Your task to perform on an android device: install app "Adobe Express: Graphic Design" Image 0: 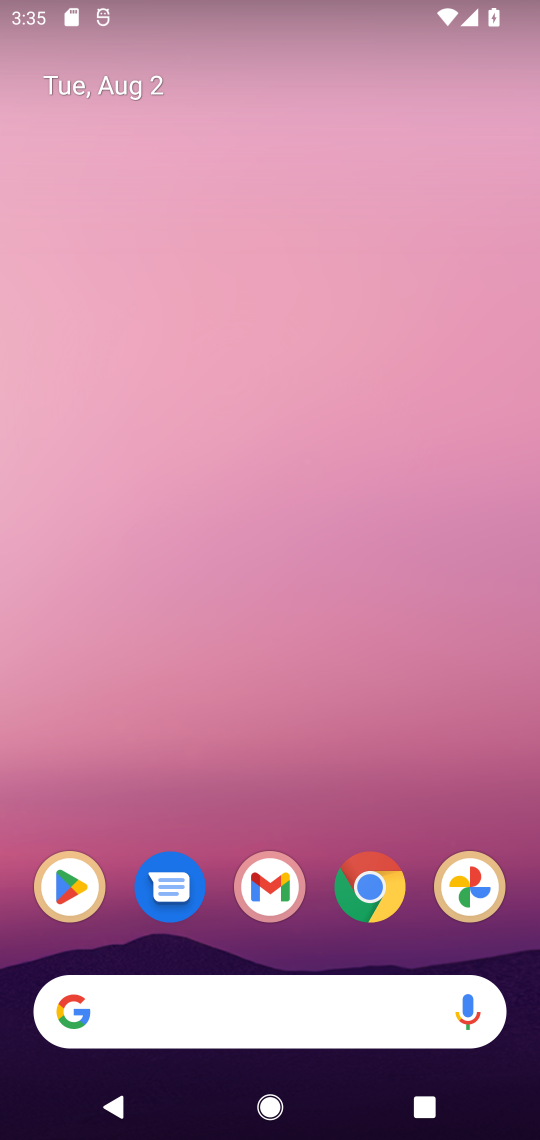
Step 0: click (61, 893)
Your task to perform on an android device: install app "Adobe Express: Graphic Design" Image 1: 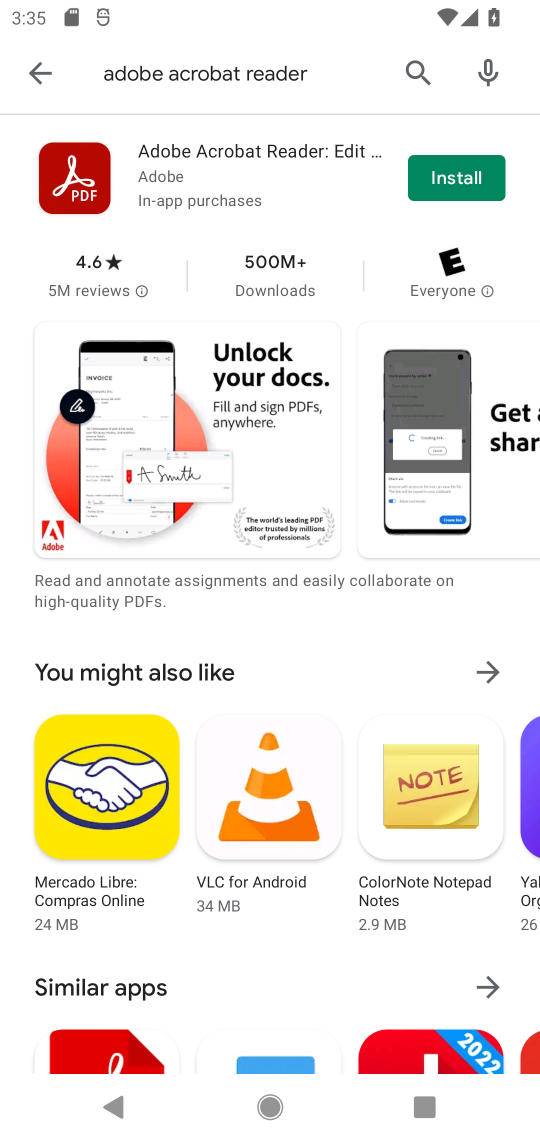
Step 1: click (47, 64)
Your task to perform on an android device: install app "Adobe Express: Graphic Design" Image 2: 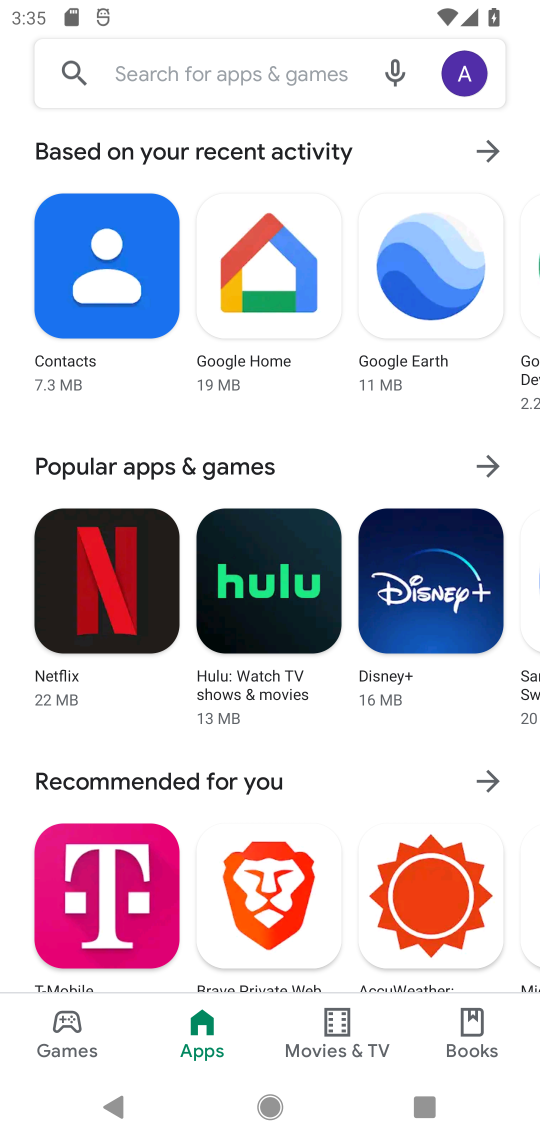
Step 2: click (137, 64)
Your task to perform on an android device: install app "Adobe Express: Graphic Design" Image 3: 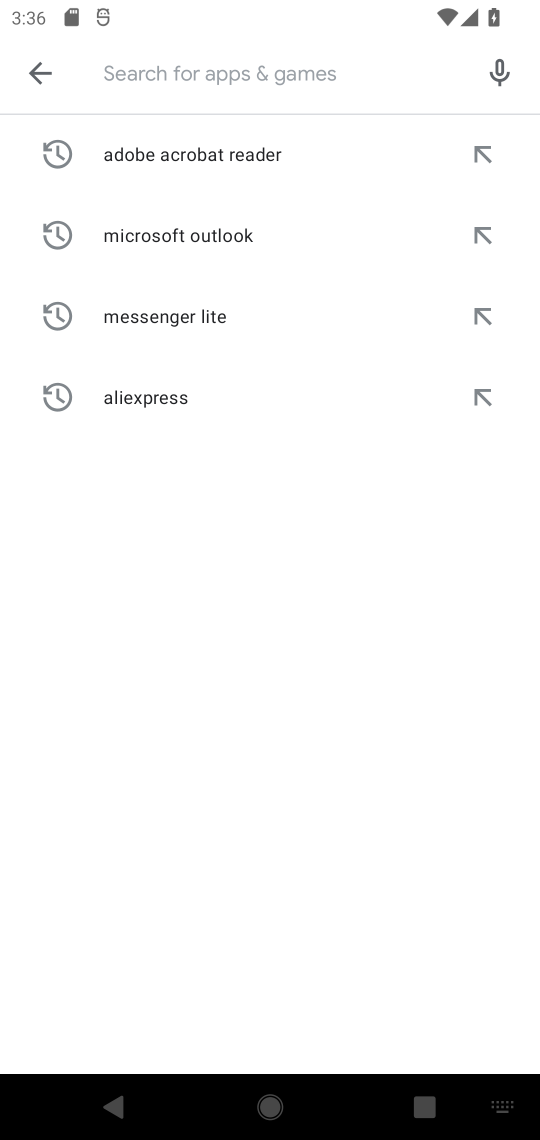
Step 3: type "Adobe Express"
Your task to perform on an android device: install app "Adobe Express: Graphic Design" Image 4: 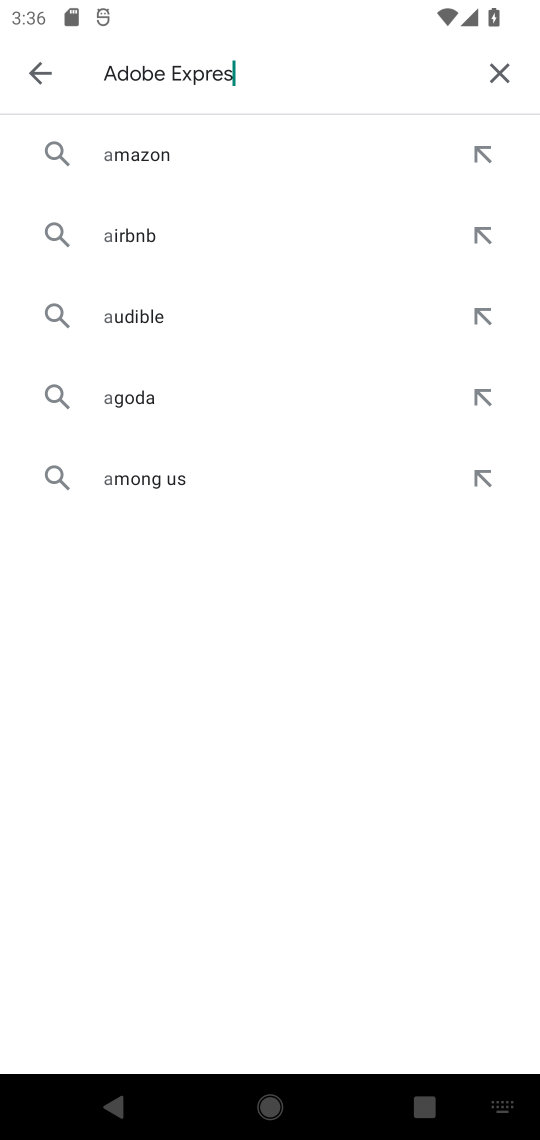
Step 4: type ""
Your task to perform on an android device: install app "Adobe Express: Graphic Design" Image 5: 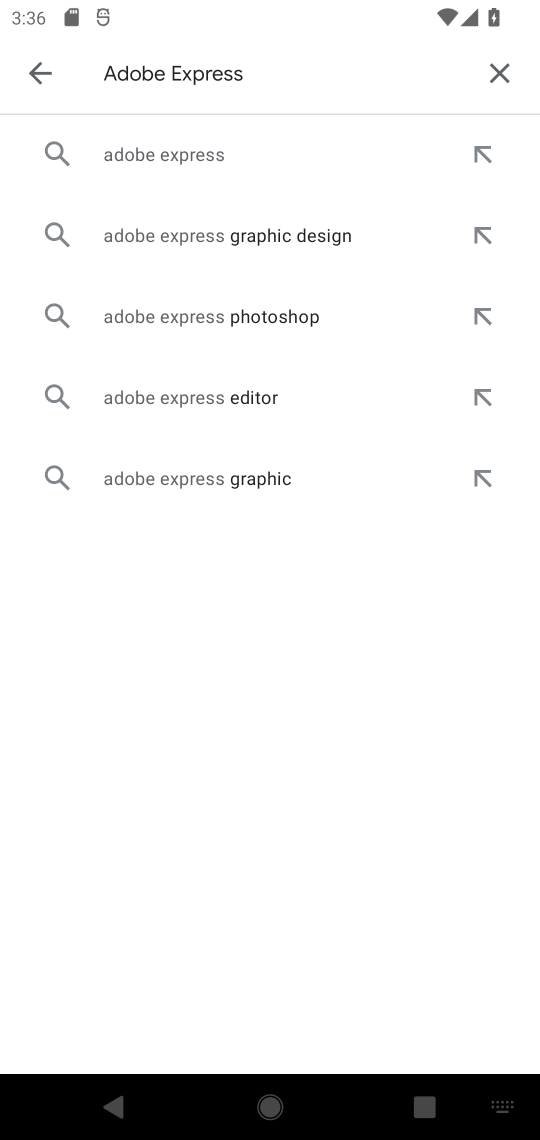
Step 5: click (350, 234)
Your task to perform on an android device: install app "Adobe Express: Graphic Design" Image 6: 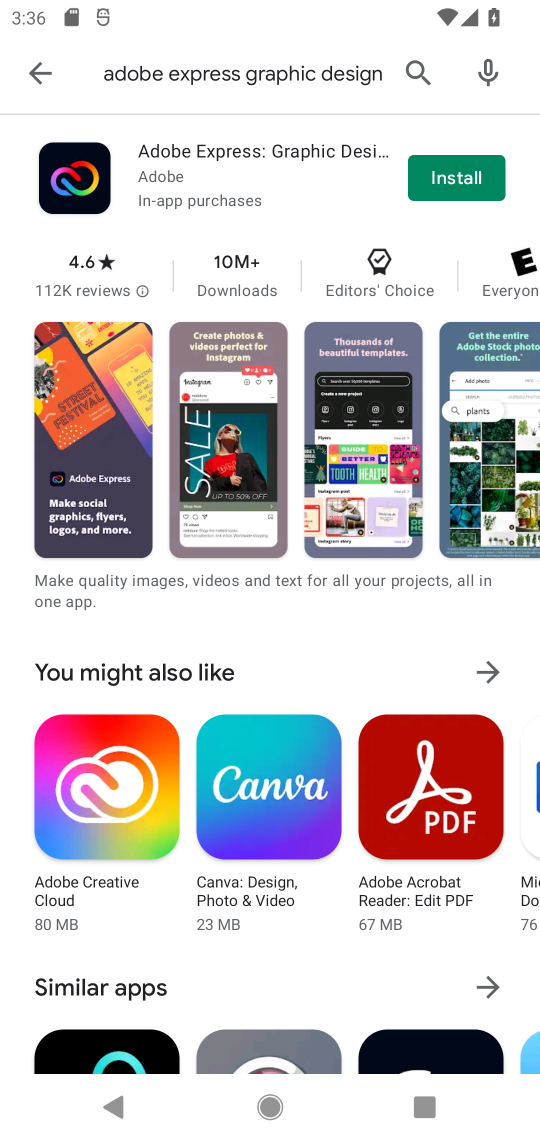
Step 6: click (443, 167)
Your task to perform on an android device: install app "Adobe Express: Graphic Design" Image 7: 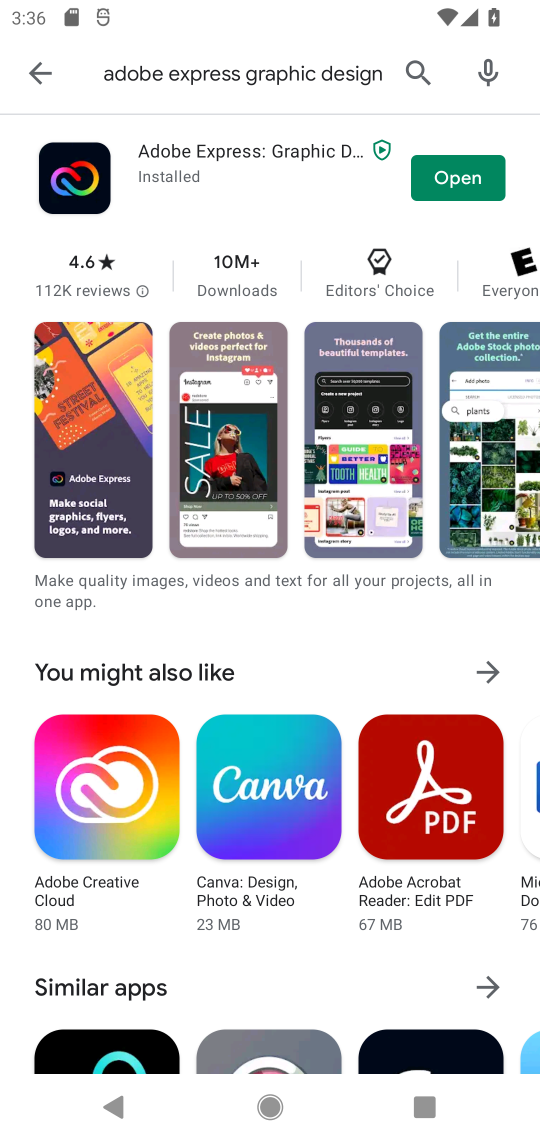
Step 7: task complete